Your task to perform on an android device: allow cookies in the chrome app Image 0: 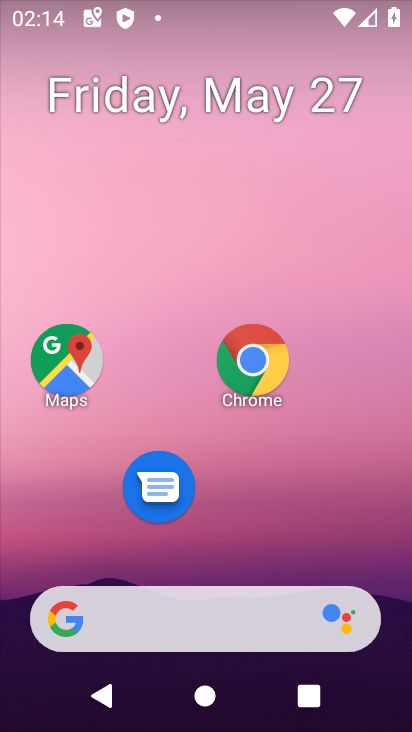
Step 0: click (259, 364)
Your task to perform on an android device: allow cookies in the chrome app Image 1: 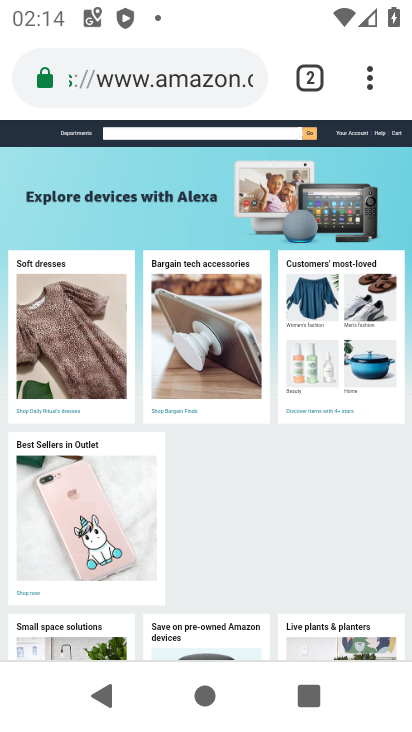
Step 1: click (360, 77)
Your task to perform on an android device: allow cookies in the chrome app Image 2: 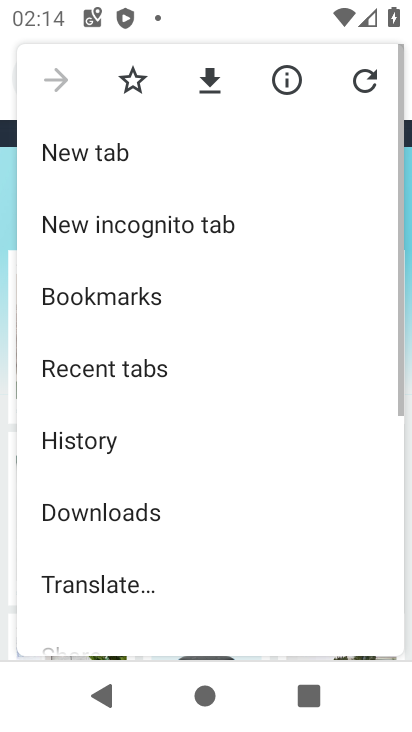
Step 2: drag from (167, 559) to (208, 184)
Your task to perform on an android device: allow cookies in the chrome app Image 3: 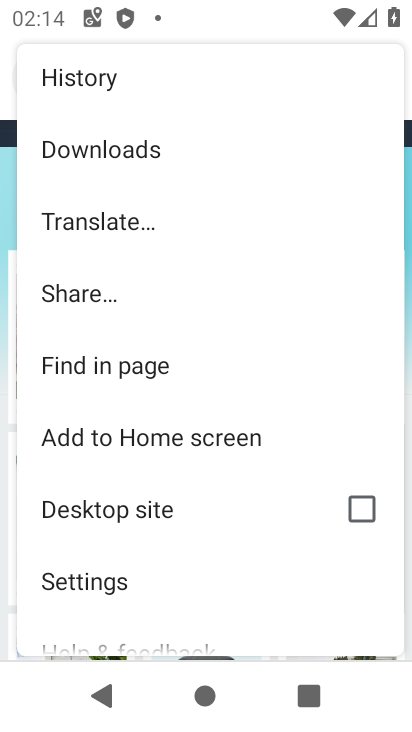
Step 3: click (124, 584)
Your task to perform on an android device: allow cookies in the chrome app Image 4: 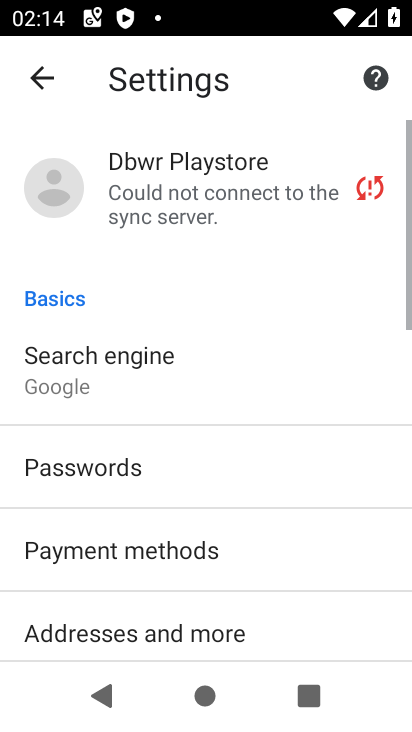
Step 4: drag from (188, 587) to (206, 101)
Your task to perform on an android device: allow cookies in the chrome app Image 5: 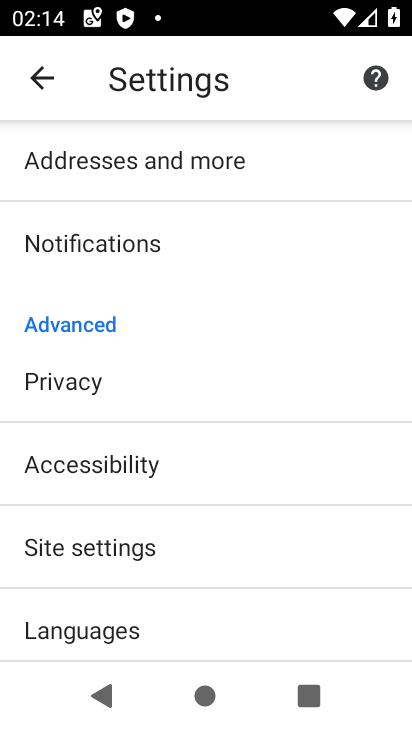
Step 5: click (98, 545)
Your task to perform on an android device: allow cookies in the chrome app Image 6: 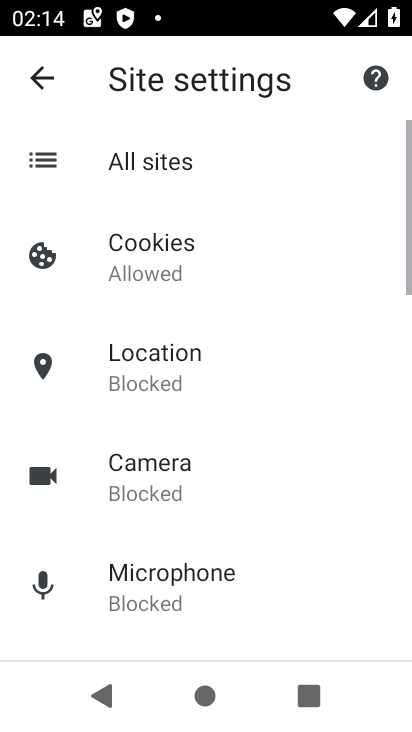
Step 6: click (197, 247)
Your task to perform on an android device: allow cookies in the chrome app Image 7: 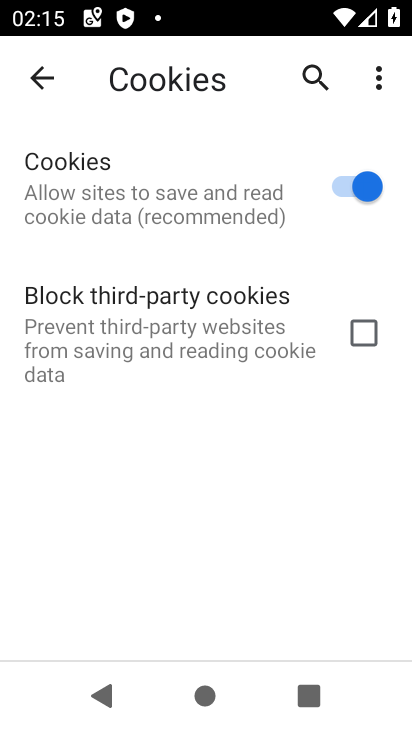
Step 7: task complete